Your task to perform on an android device: What's the weather today? Image 0: 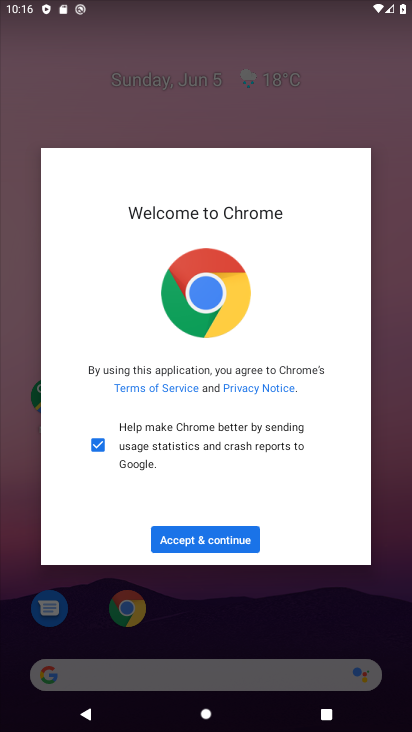
Step 0: press home button
Your task to perform on an android device: What's the weather today? Image 1: 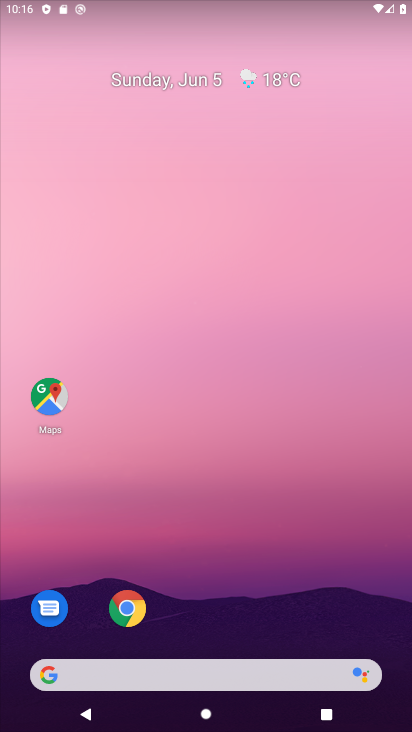
Step 1: click (267, 667)
Your task to perform on an android device: What's the weather today? Image 2: 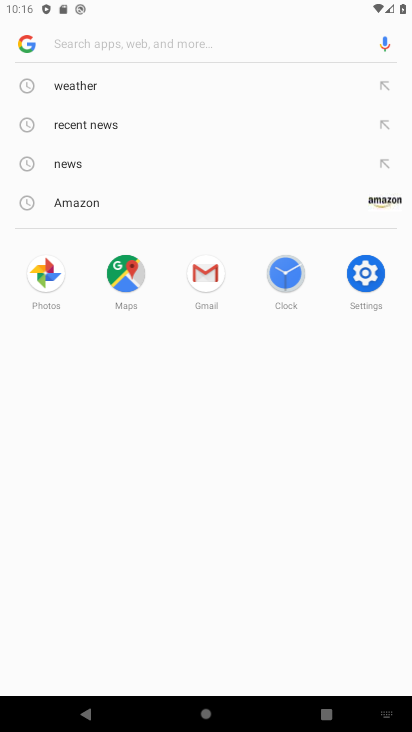
Step 2: click (148, 76)
Your task to perform on an android device: What's the weather today? Image 3: 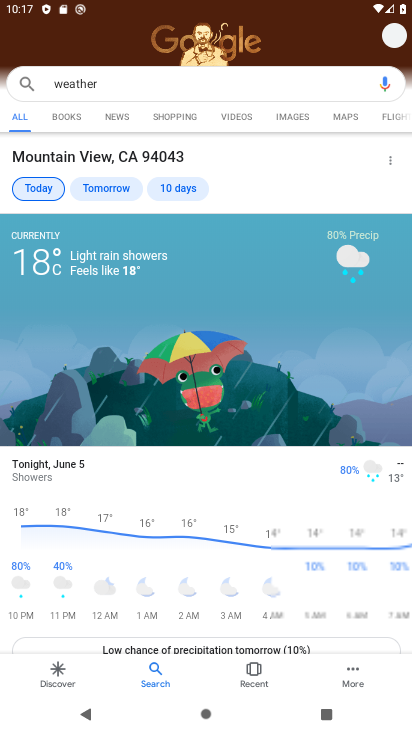
Step 3: task complete